Your task to perform on an android device: check android version Image 0: 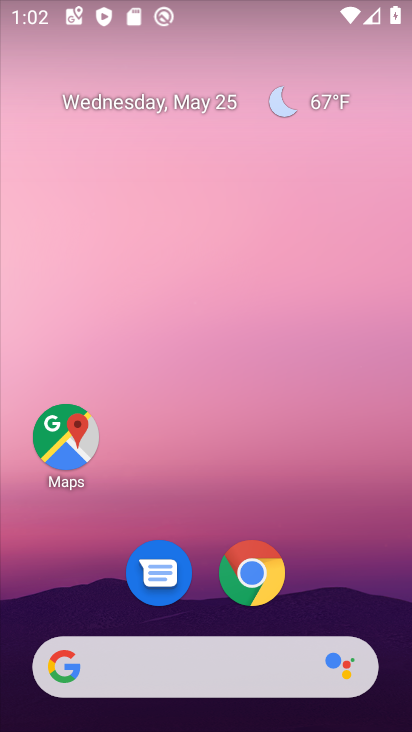
Step 0: drag from (103, 612) to (239, 170)
Your task to perform on an android device: check android version Image 1: 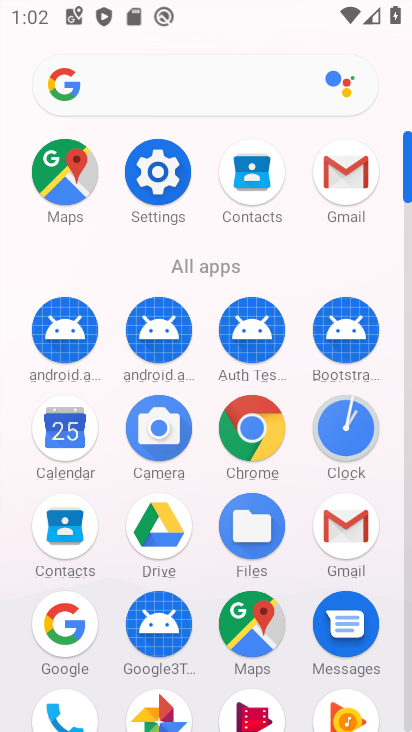
Step 1: drag from (185, 655) to (253, 375)
Your task to perform on an android device: check android version Image 2: 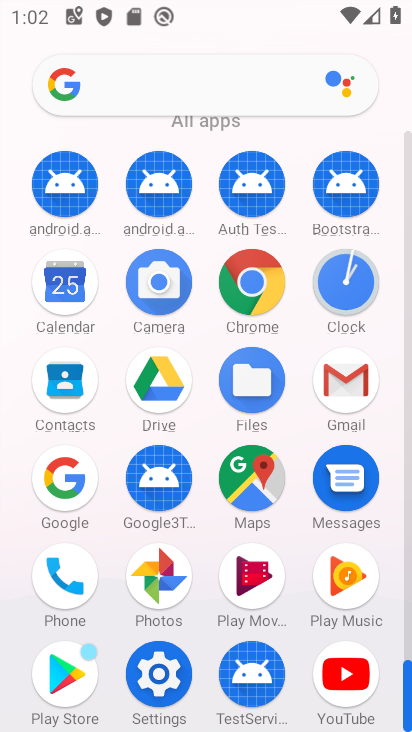
Step 2: click (159, 666)
Your task to perform on an android device: check android version Image 3: 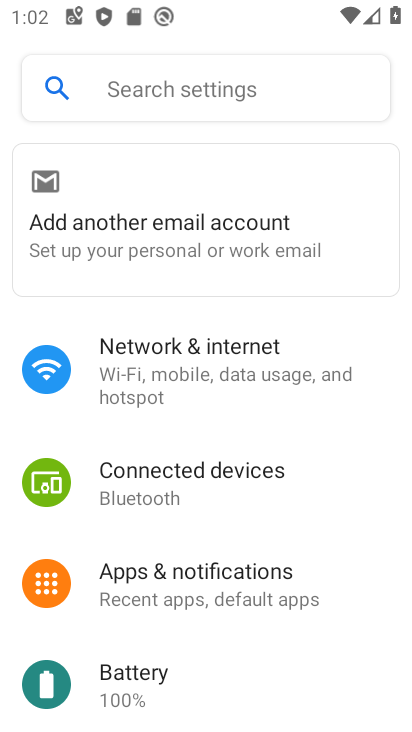
Step 3: drag from (255, 684) to (410, 215)
Your task to perform on an android device: check android version Image 4: 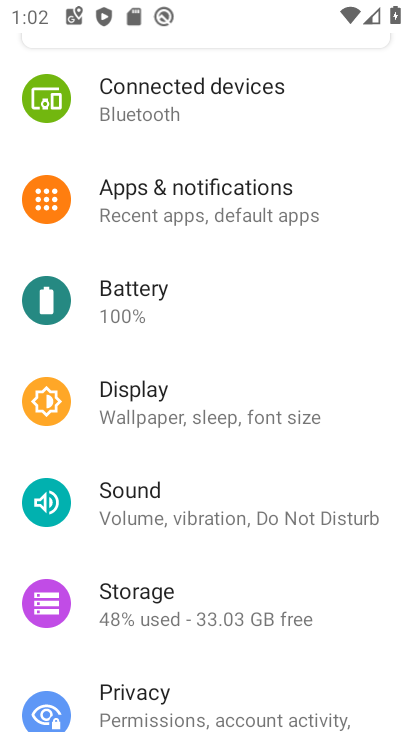
Step 4: drag from (269, 653) to (349, 72)
Your task to perform on an android device: check android version Image 5: 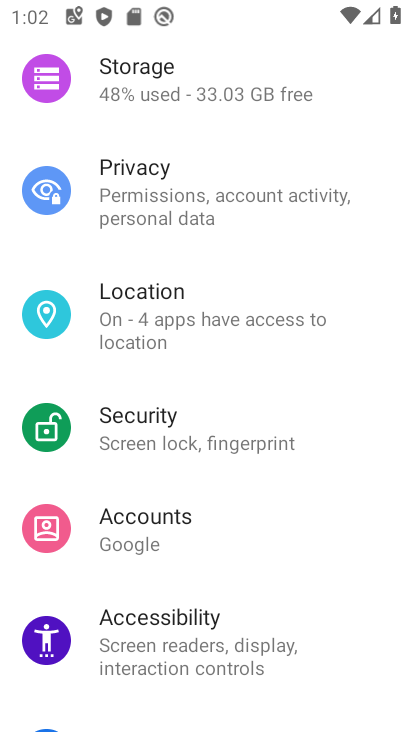
Step 5: drag from (177, 631) to (266, 225)
Your task to perform on an android device: check android version Image 6: 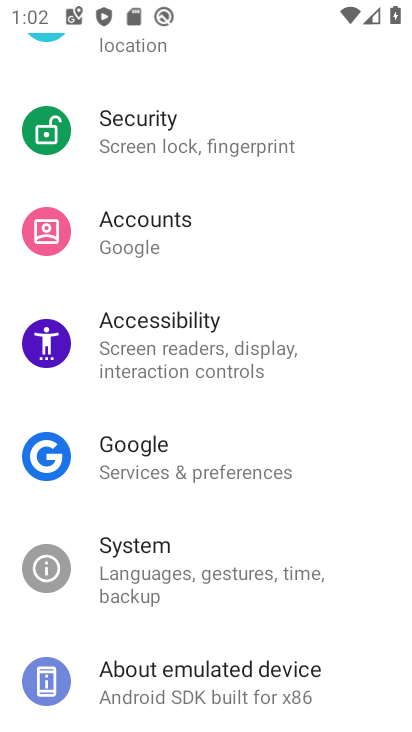
Step 6: drag from (173, 672) to (233, 378)
Your task to perform on an android device: check android version Image 7: 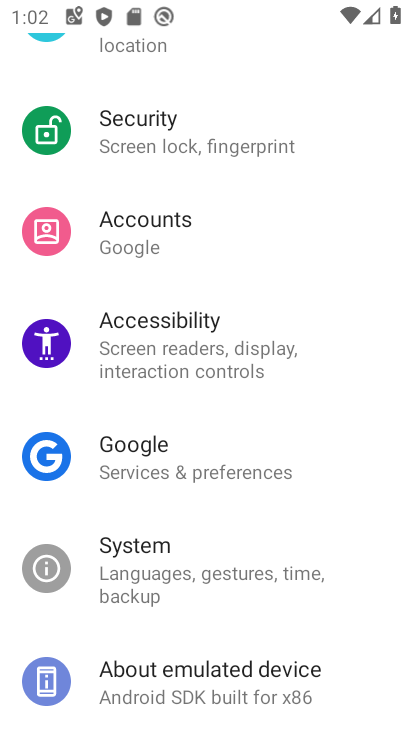
Step 7: click (235, 684)
Your task to perform on an android device: check android version Image 8: 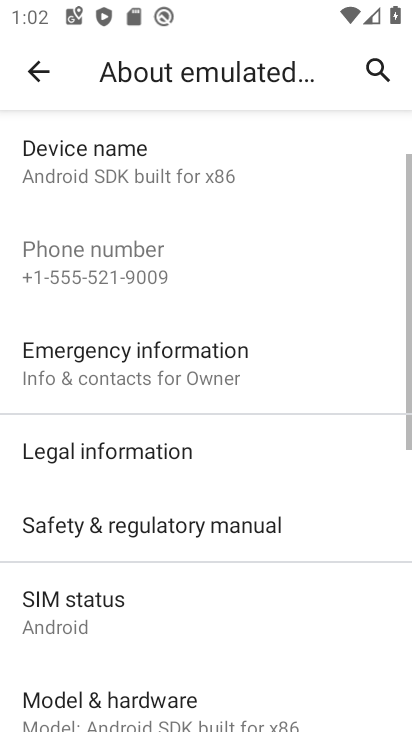
Step 8: drag from (162, 442) to (282, 217)
Your task to perform on an android device: check android version Image 9: 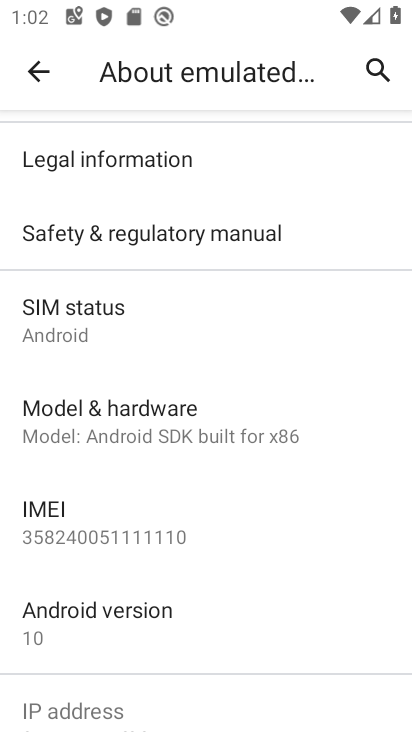
Step 9: click (141, 630)
Your task to perform on an android device: check android version Image 10: 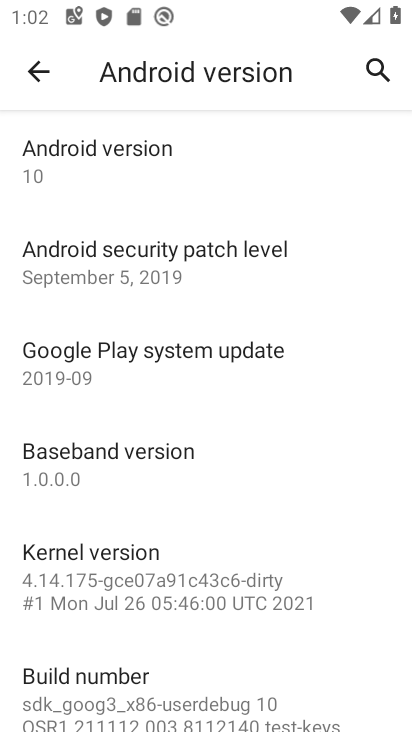
Step 10: task complete